Your task to perform on an android device: turn off notifications settings in the gmail app Image 0: 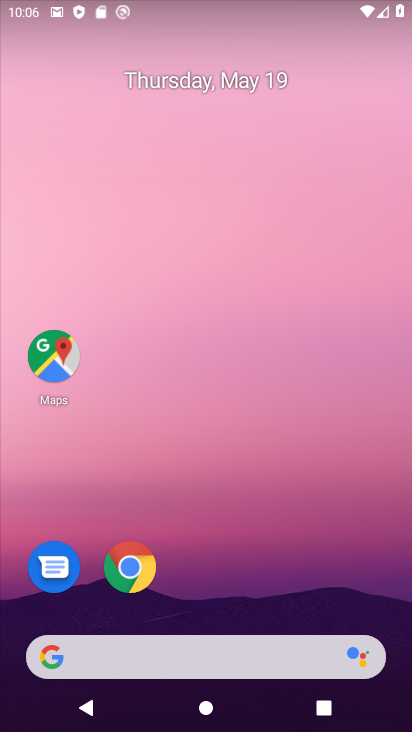
Step 0: drag from (235, 543) to (229, 156)
Your task to perform on an android device: turn off notifications settings in the gmail app Image 1: 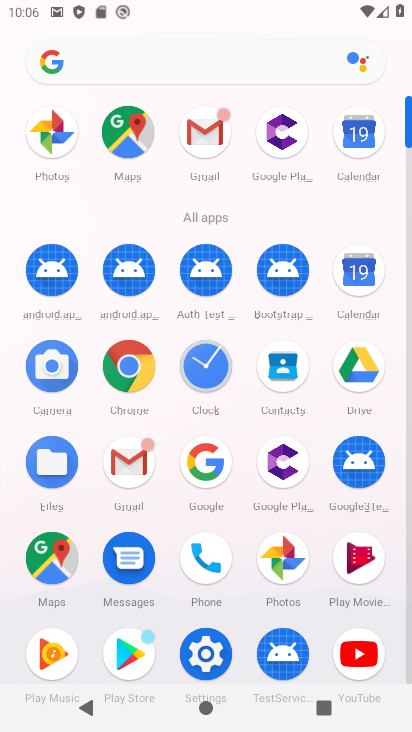
Step 1: click (207, 148)
Your task to perform on an android device: turn off notifications settings in the gmail app Image 2: 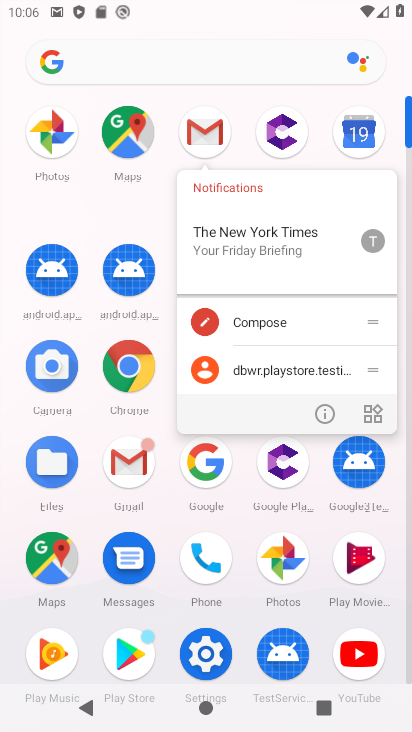
Step 2: click (207, 144)
Your task to perform on an android device: turn off notifications settings in the gmail app Image 3: 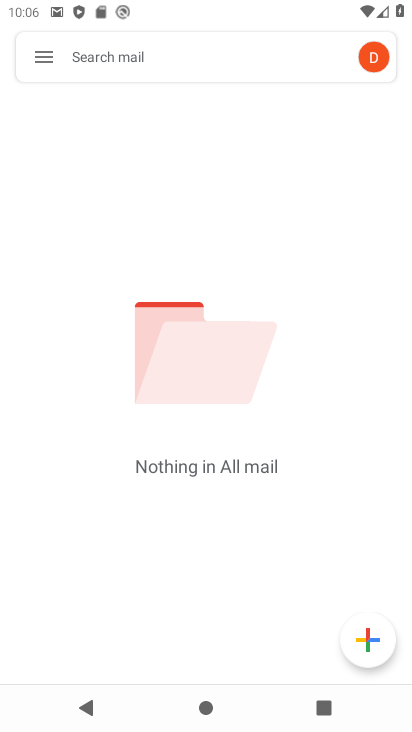
Step 3: click (47, 61)
Your task to perform on an android device: turn off notifications settings in the gmail app Image 4: 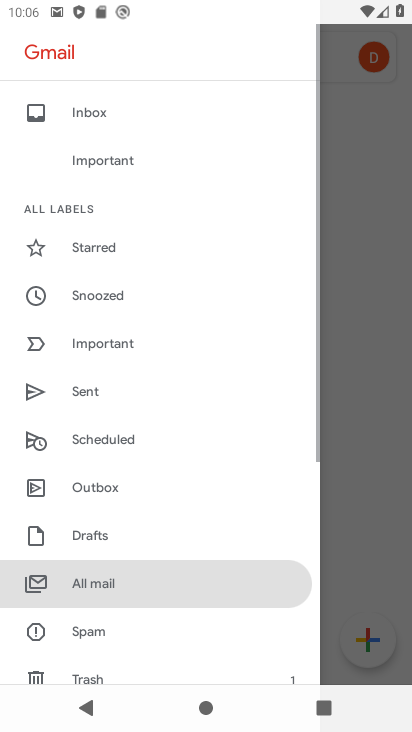
Step 4: drag from (108, 617) to (188, 176)
Your task to perform on an android device: turn off notifications settings in the gmail app Image 5: 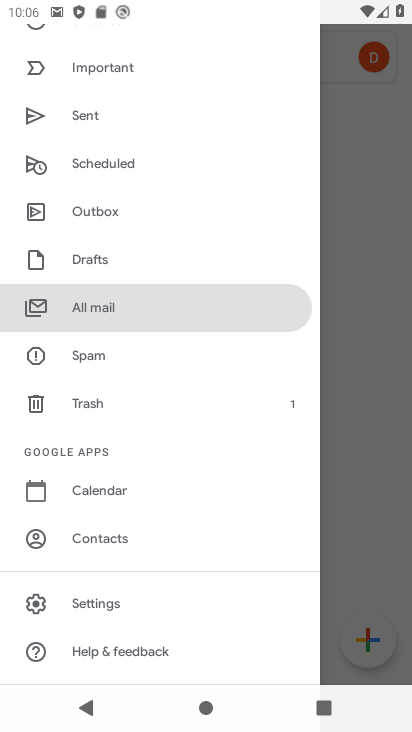
Step 5: click (99, 613)
Your task to perform on an android device: turn off notifications settings in the gmail app Image 6: 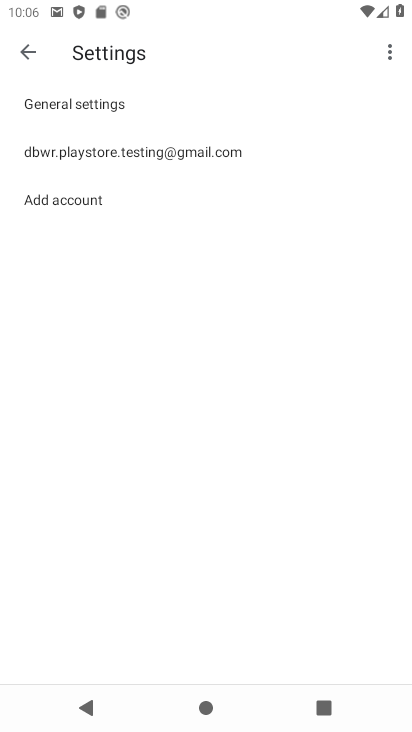
Step 6: click (197, 147)
Your task to perform on an android device: turn off notifications settings in the gmail app Image 7: 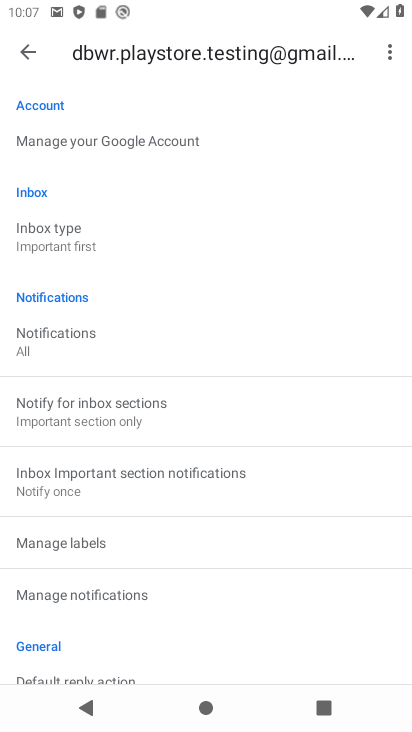
Step 7: click (92, 596)
Your task to perform on an android device: turn off notifications settings in the gmail app Image 8: 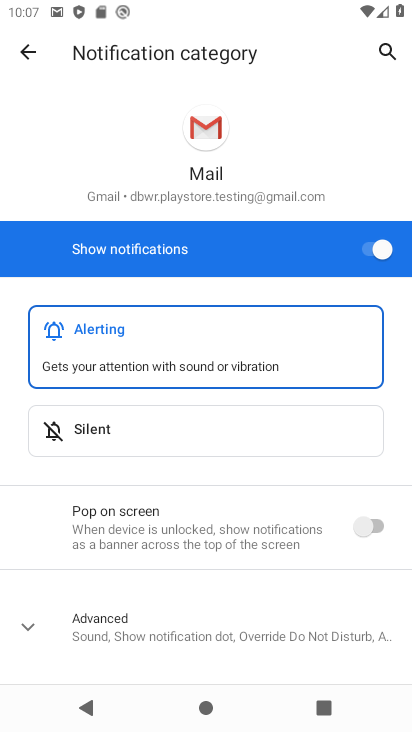
Step 8: click (361, 242)
Your task to perform on an android device: turn off notifications settings in the gmail app Image 9: 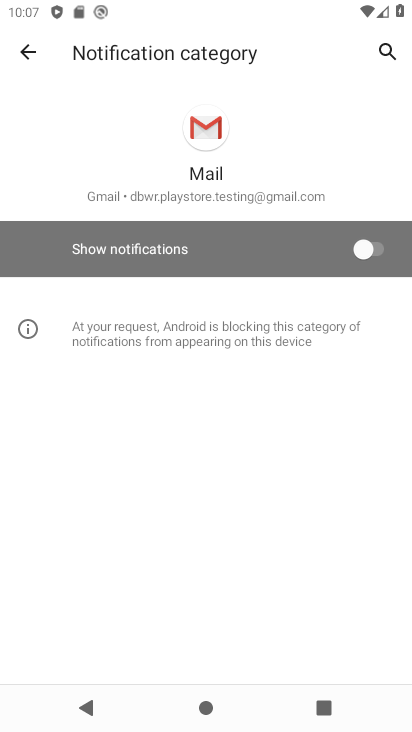
Step 9: task complete